Your task to perform on an android device: Open calendar and show me the second week of next month Image 0: 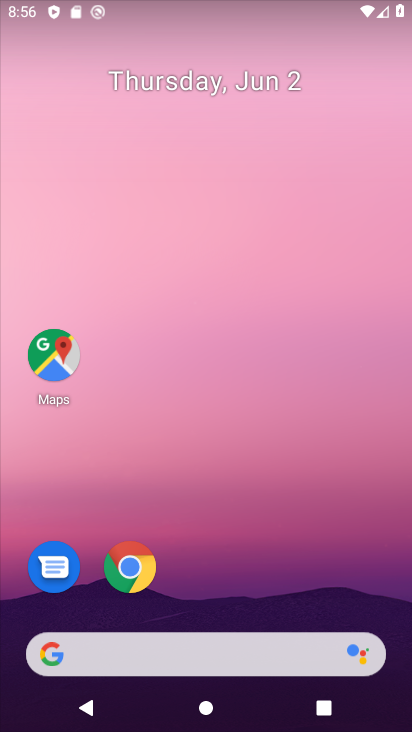
Step 0: drag from (266, 517) to (212, 178)
Your task to perform on an android device: Open calendar and show me the second week of next month Image 1: 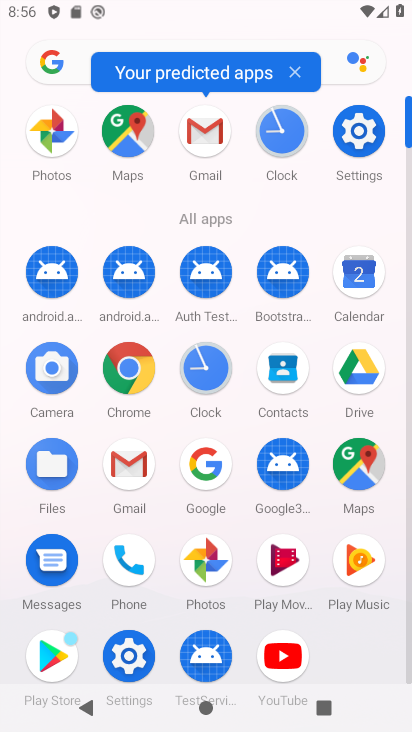
Step 1: click (354, 286)
Your task to perform on an android device: Open calendar and show me the second week of next month Image 2: 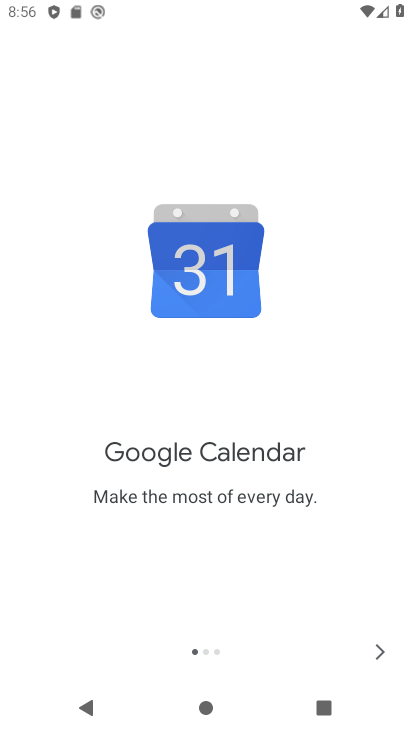
Step 2: click (380, 651)
Your task to perform on an android device: Open calendar and show me the second week of next month Image 3: 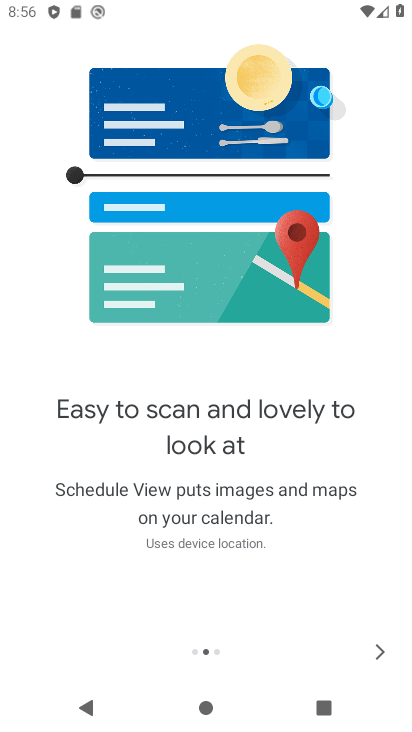
Step 3: click (380, 651)
Your task to perform on an android device: Open calendar and show me the second week of next month Image 4: 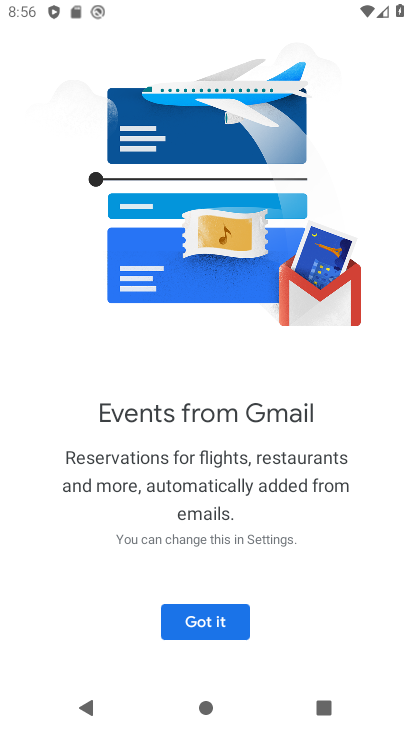
Step 4: click (217, 627)
Your task to perform on an android device: Open calendar and show me the second week of next month Image 5: 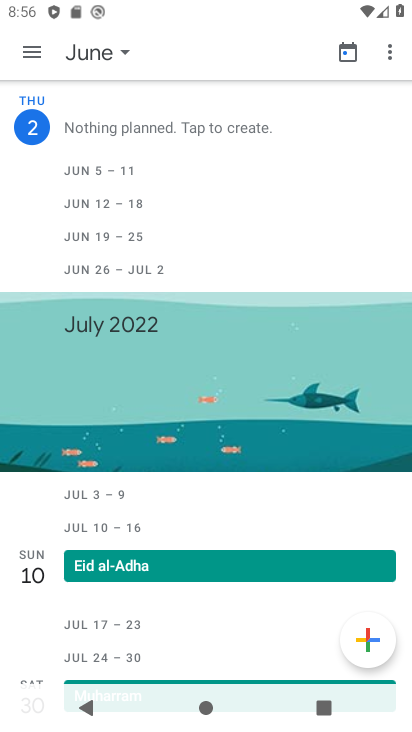
Step 5: click (101, 46)
Your task to perform on an android device: Open calendar and show me the second week of next month Image 6: 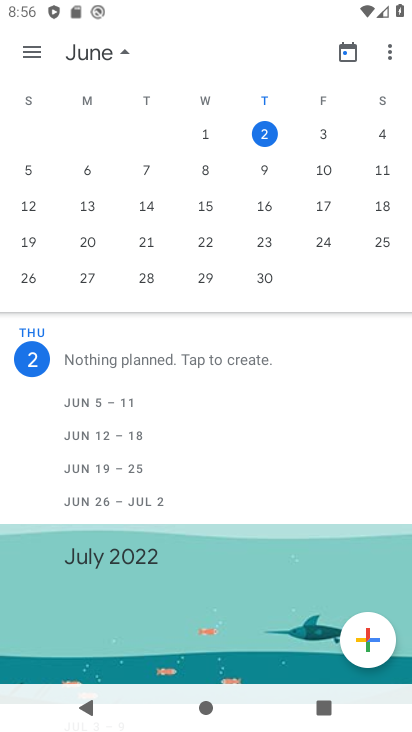
Step 6: click (19, 170)
Your task to perform on an android device: Open calendar and show me the second week of next month Image 7: 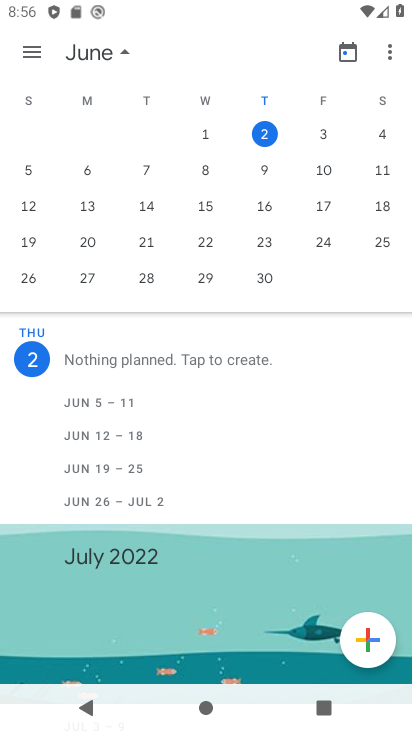
Step 7: click (29, 172)
Your task to perform on an android device: Open calendar and show me the second week of next month Image 8: 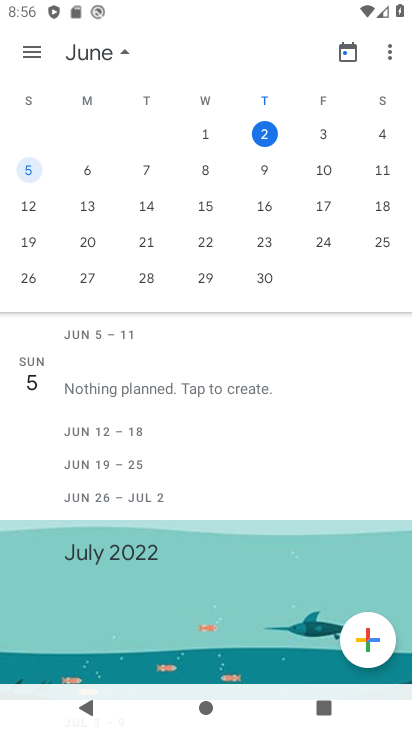
Step 8: task complete